Your task to perform on an android device: Go to Google Image 0: 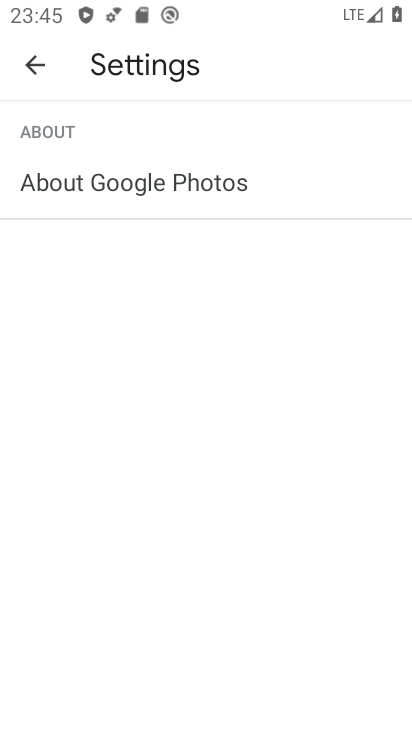
Step 0: press home button
Your task to perform on an android device: Go to Google Image 1: 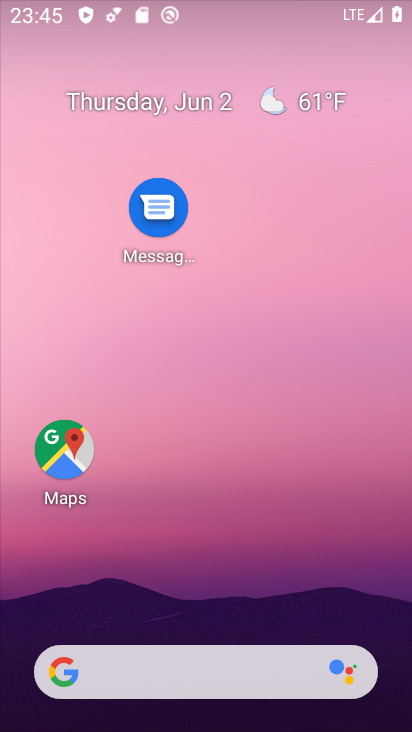
Step 1: drag from (203, 615) to (363, 44)
Your task to perform on an android device: Go to Google Image 2: 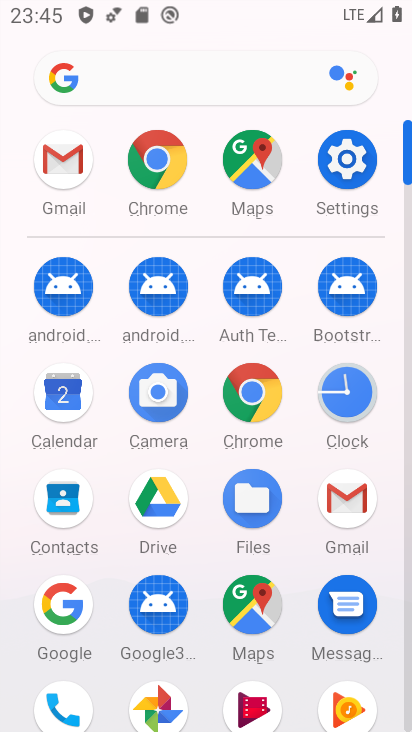
Step 2: click (69, 624)
Your task to perform on an android device: Go to Google Image 3: 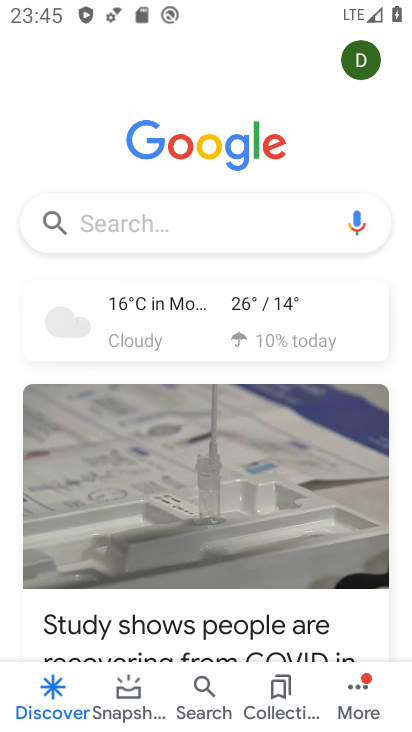
Step 3: task complete